Your task to perform on an android device: Open notification settings Image 0: 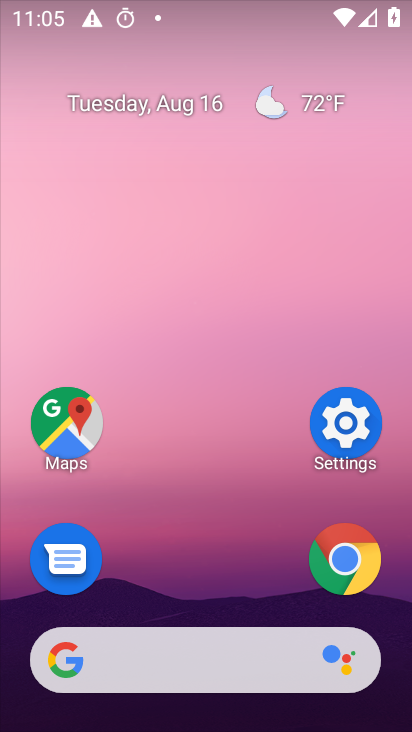
Step 0: click (326, 433)
Your task to perform on an android device: Open notification settings Image 1: 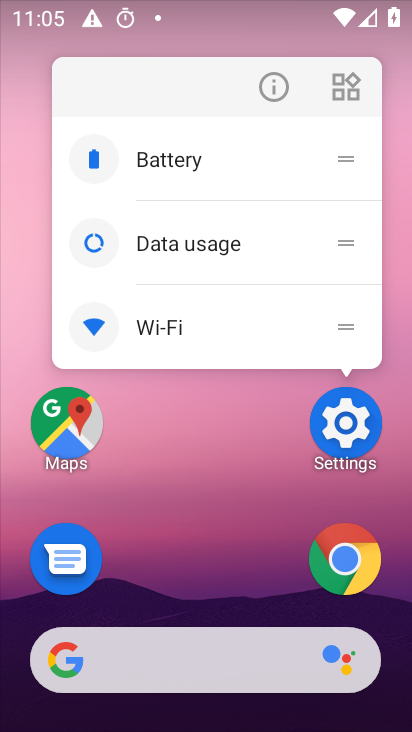
Step 1: click (340, 420)
Your task to perform on an android device: Open notification settings Image 2: 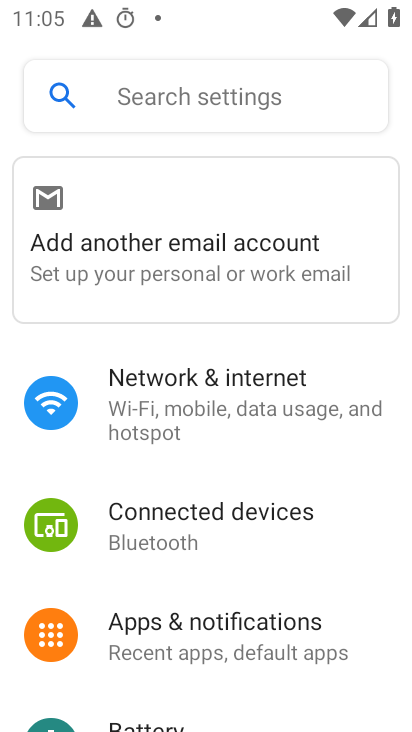
Step 2: click (246, 615)
Your task to perform on an android device: Open notification settings Image 3: 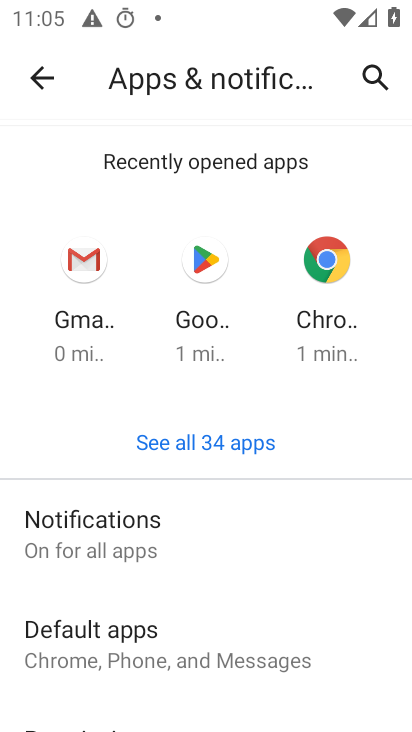
Step 3: click (59, 549)
Your task to perform on an android device: Open notification settings Image 4: 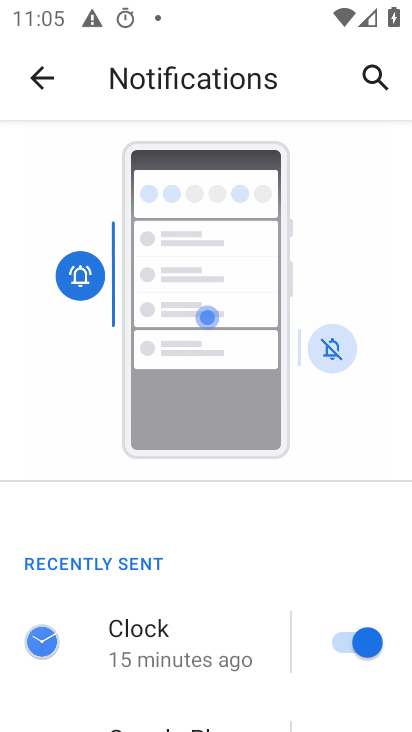
Step 4: task complete